Your task to perform on an android device: turn off sleep mode Image 0: 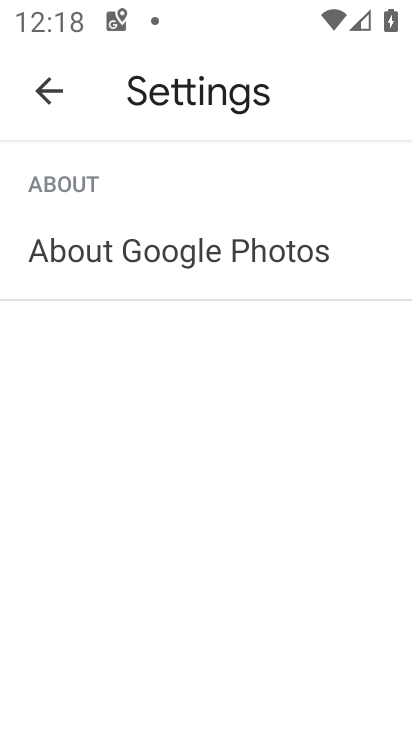
Step 0: press home button
Your task to perform on an android device: turn off sleep mode Image 1: 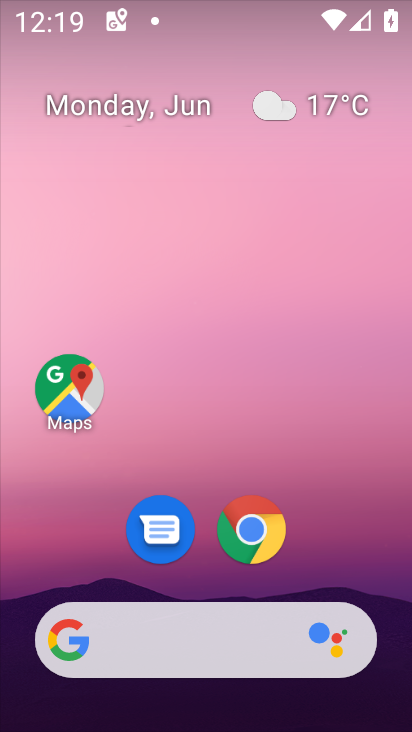
Step 1: drag from (313, 28) to (250, 43)
Your task to perform on an android device: turn off sleep mode Image 2: 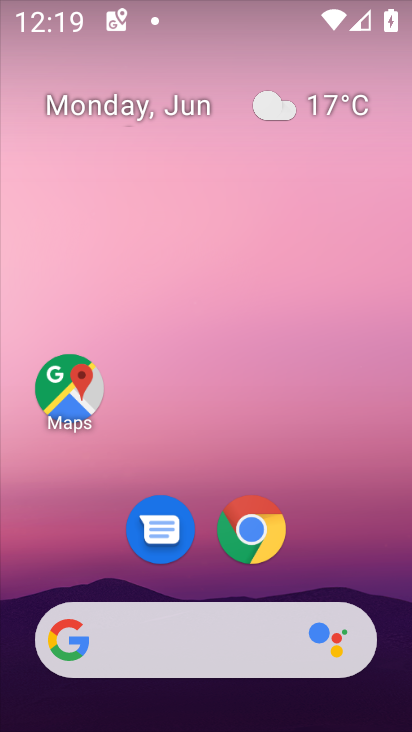
Step 2: drag from (356, 524) to (228, 16)
Your task to perform on an android device: turn off sleep mode Image 3: 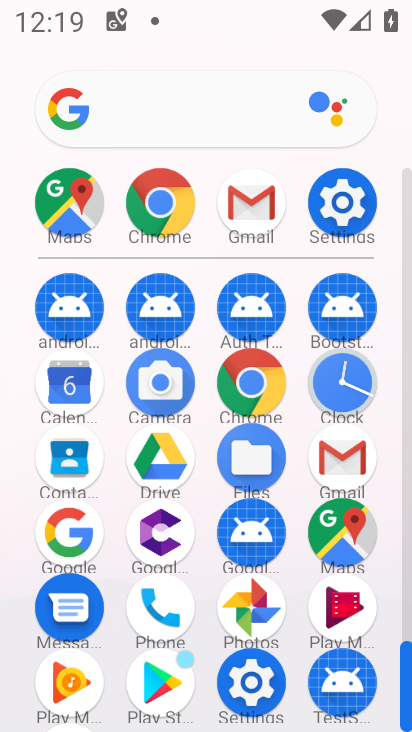
Step 3: click (329, 202)
Your task to perform on an android device: turn off sleep mode Image 4: 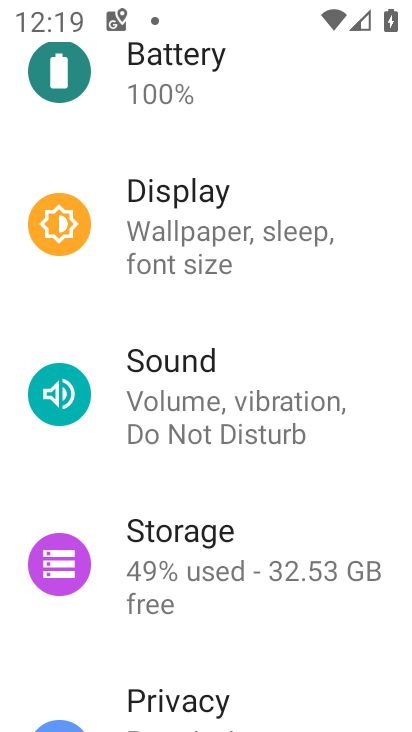
Step 4: drag from (243, 595) to (227, 114)
Your task to perform on an android device: turn off sleep mode Image 5: 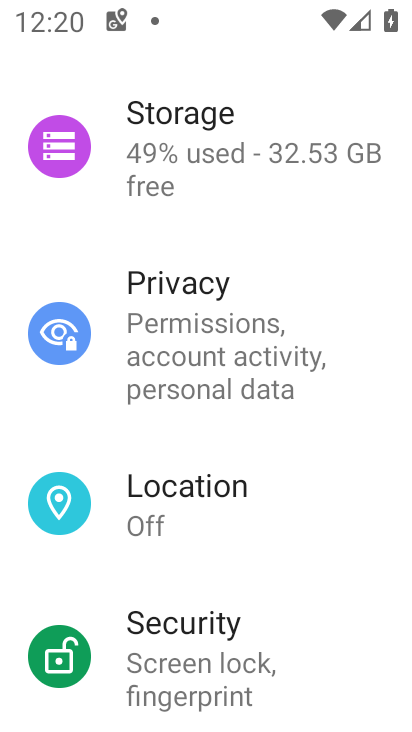
Step 5: drag from (347, 220) to (336, 716)
Your task to perform on an android device: turn off sleep mode Image 6: 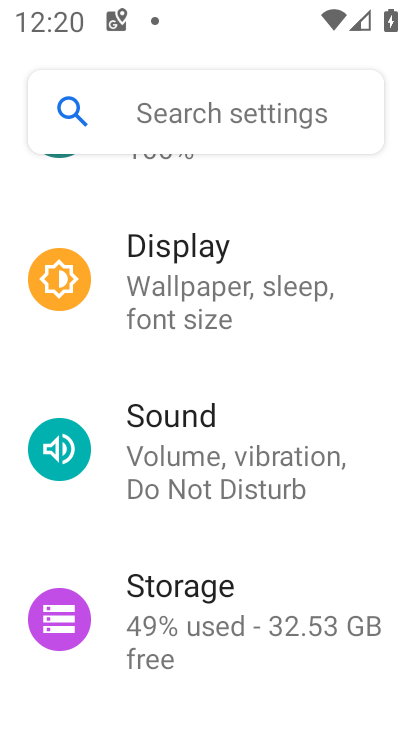
Step 6: drag from (302, 259) to (329, 637)
Your task to perform on an android device: turn off sleep mode Image 7: 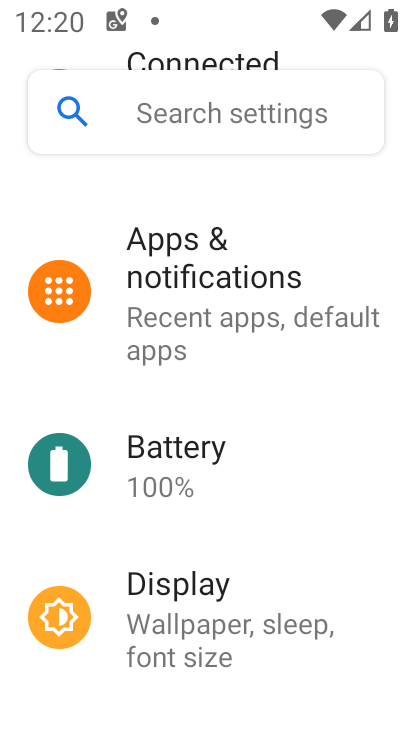
Step 7: click (207, 645)
Your task to perform on an android device: turn off sleep mode Image 8: 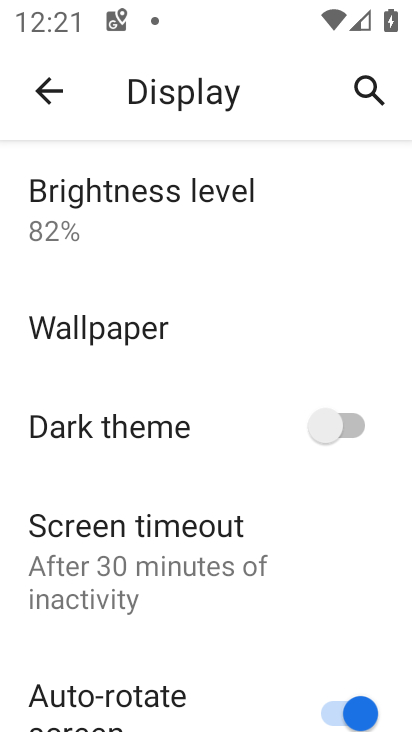
Step 8: drag from (163, 365) to (98, 652)
Your task to perform on an android device: turn off sleep mode Image 9: 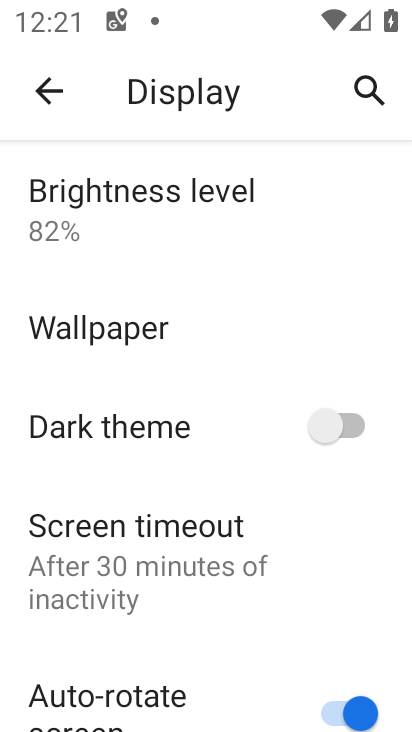
Step 9: drag from (172, 615) to (255, 90)
Your task to perform on an android device: turn off sleep mode Image 10: 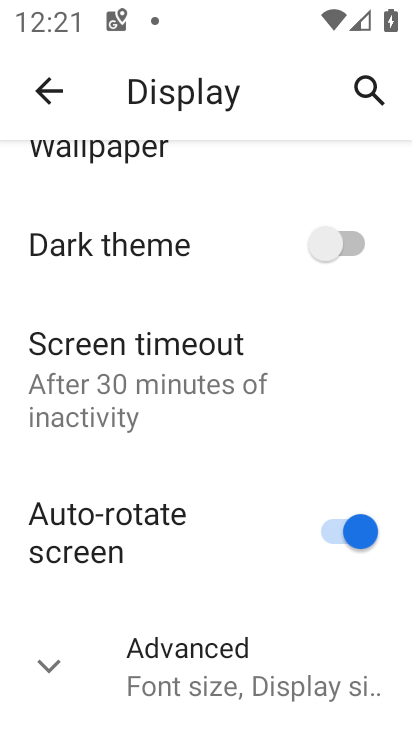
Step 10: drag from (218, 615) to (240, 168)
Your task to perform on an android device: turn off sleep mode Image 11: 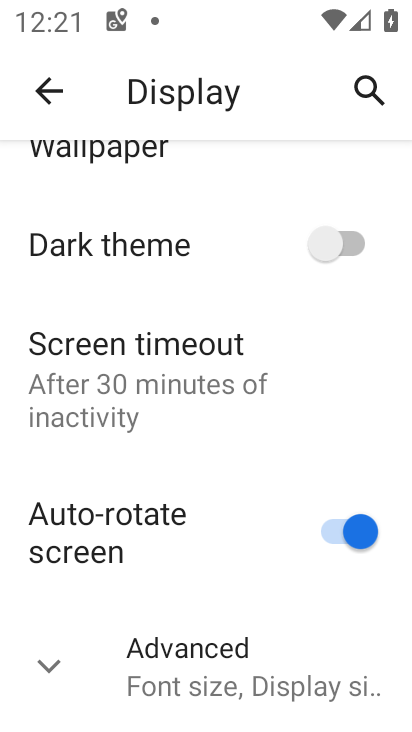
Step 11: click (145, 388)
Your task to perform on an android device: turn off sleep mode Image 12: 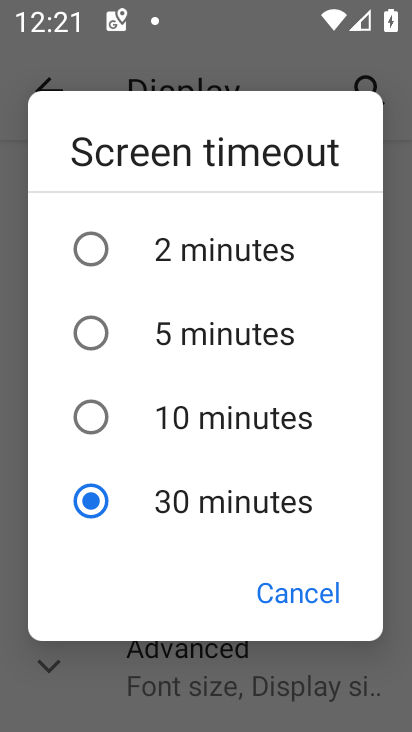
Step 12: task complete